Your task to perform on an android device: turn on wifi Image 0: 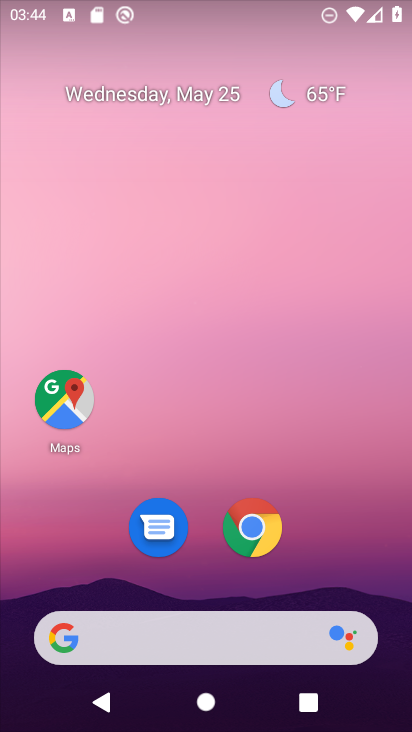
Step 0: drag from (250, 535) to (318, 0)
Your task to perform on an android device: turn on wifi Image 1: 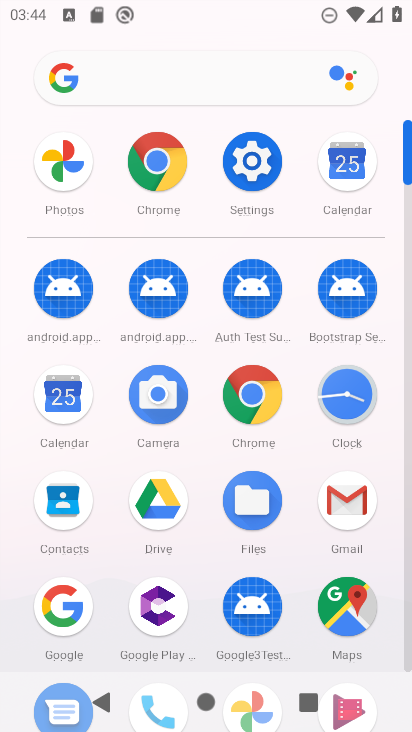
Step 1: click (245, 199)
Your task to perform on an android device: turn on wifi Image 2: 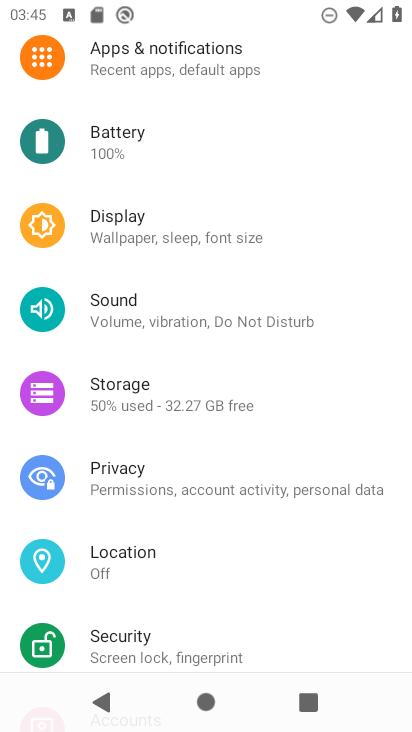
Step 2: drag from (77, 144) to (245, 673)
Your task to perform on an android device: turn on wifi Image 3: 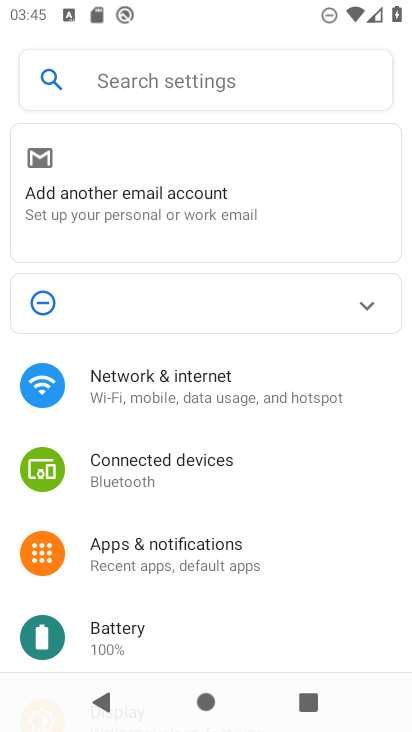
Step 3: click (212, 399)
Your task to perform on an android device: turn on wifi Image 4: 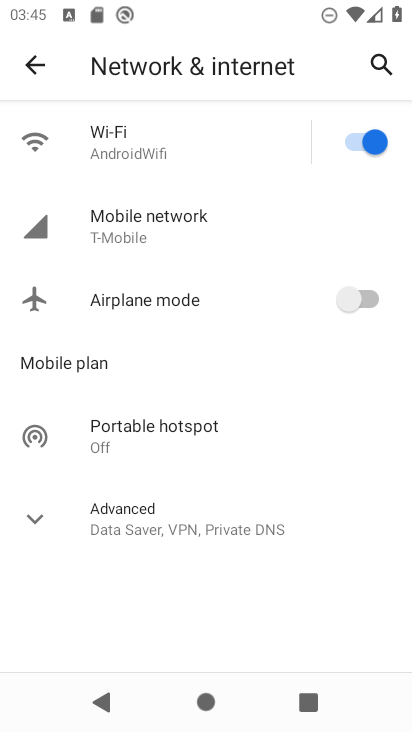
Step 4: task complete